Your task to perform on an android device: find snoozed emails in the gmail app Image 0: 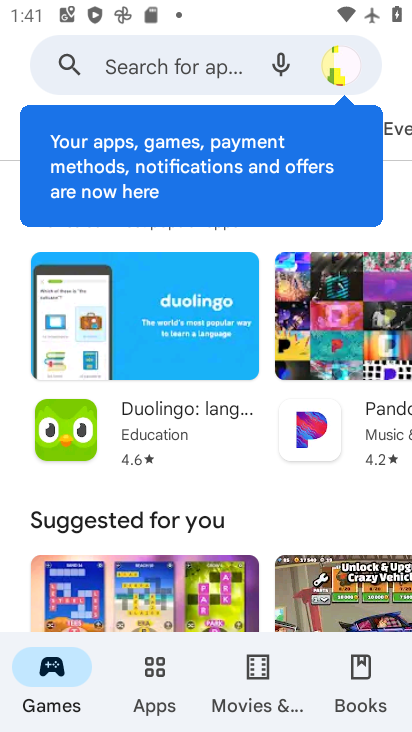
Step 0: press home button
Your task to perform on an android device: find snoozed emails in the gmail app Image 1: 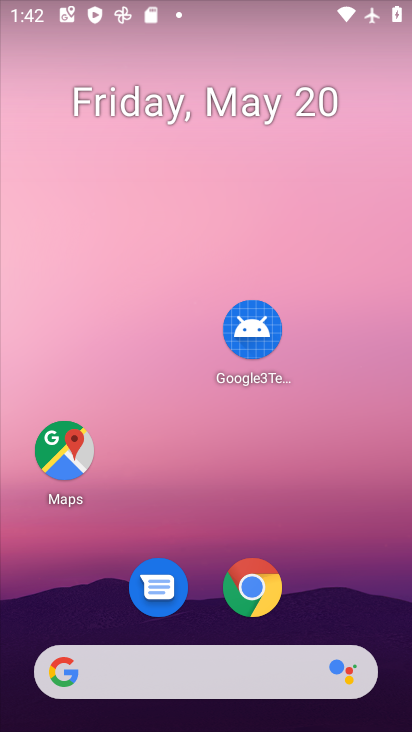
Step 1: drag from (309, 385) to (264, 107)
Your task to perform on an android device: find snoozed emails in the gmail app Image 2: 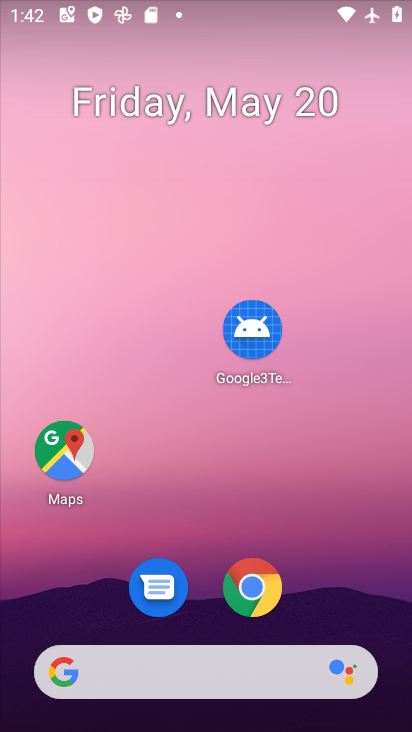
Step 2: drag from (344, 544) to (297, 122)
Your task to perform on an android device: find snoozed emails in the gmail app Image 3: 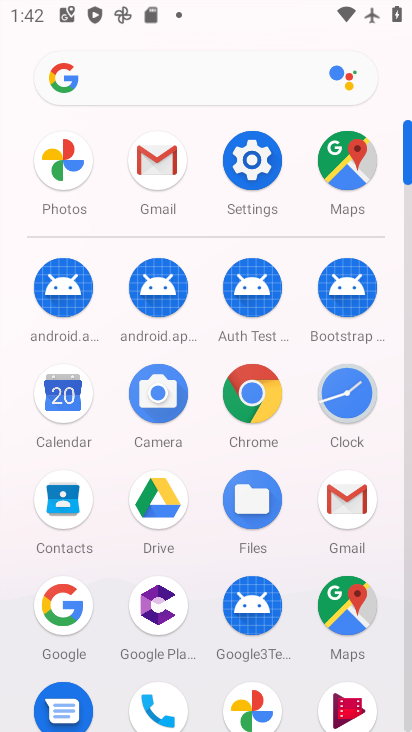
Step 3: click (163, 173)
Your task to perform on an android device: find snoozed emails in the gmail app Image 4: 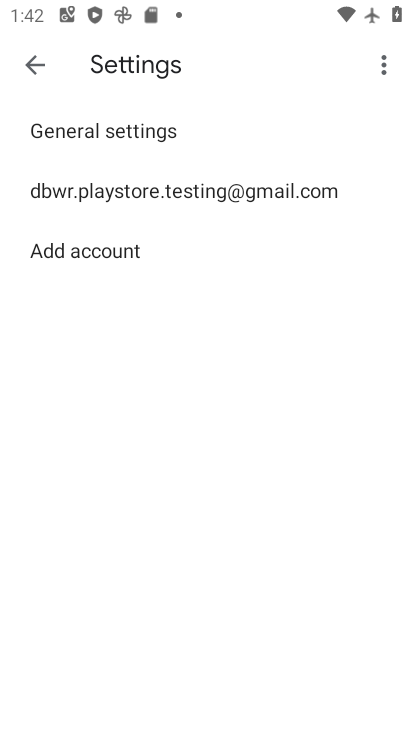
Step 4: click (37, 61)
Your task to perform on an android device: find snoozed emails in the gmail app Image 5: 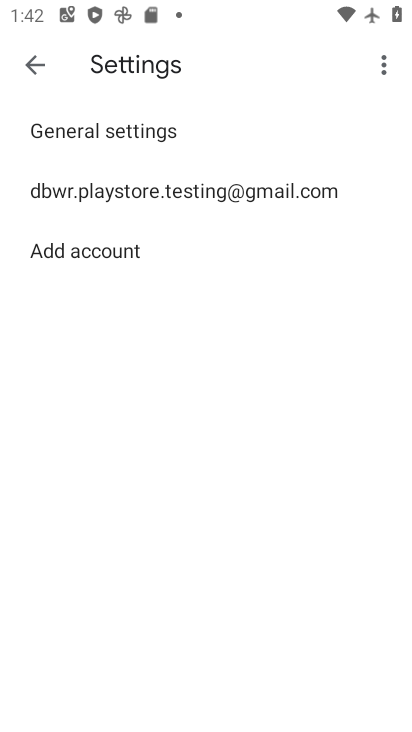
Step 5: click (37, 61)
Your task to perform on an android device: find snoozed emails in the gmail app Image 6: 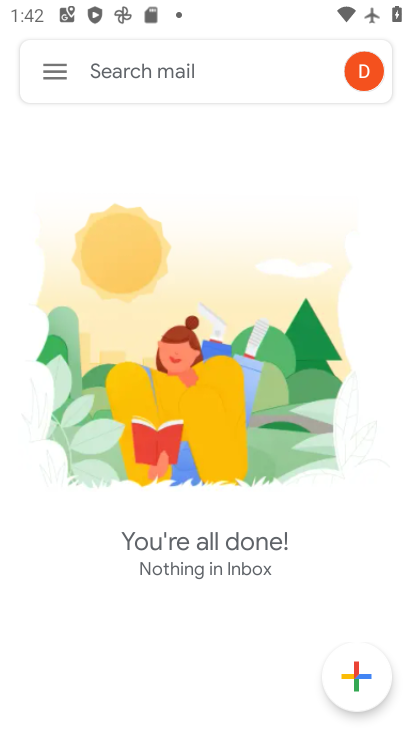
Step 6: click (41, 73)
Your task to perform on an android device: find snoozed emails in the gmail app Image 7: 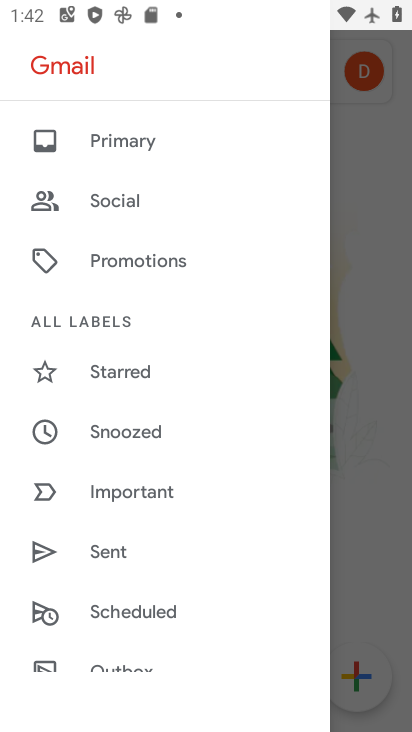
Step 7: click (124, 430)
Your task to perform on an android device: find snoozed emails in the gmail app Image 8: 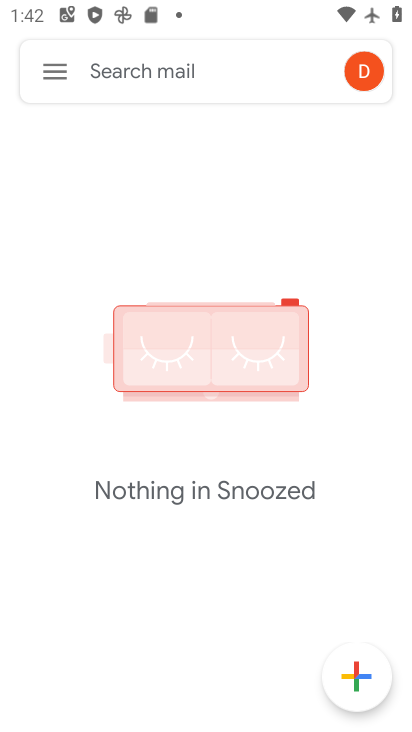
Step 8: task complete